Your task to perform on an android device: turn notification dots on Image 0: 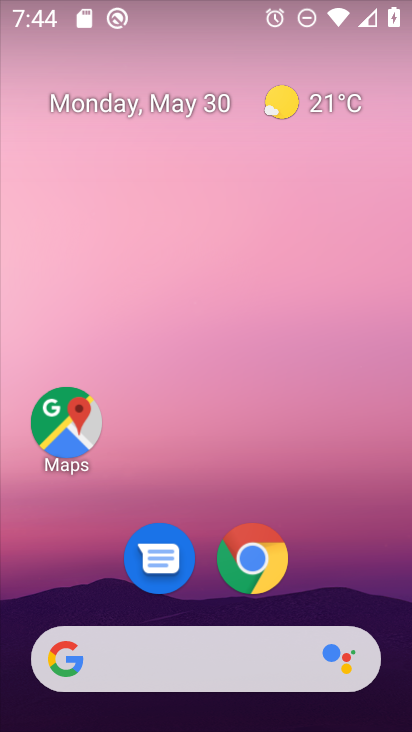
Step 0: drag from (302, 509) to (185, 88)
Your task to perform on an android device: turn notification dots on Image 1: 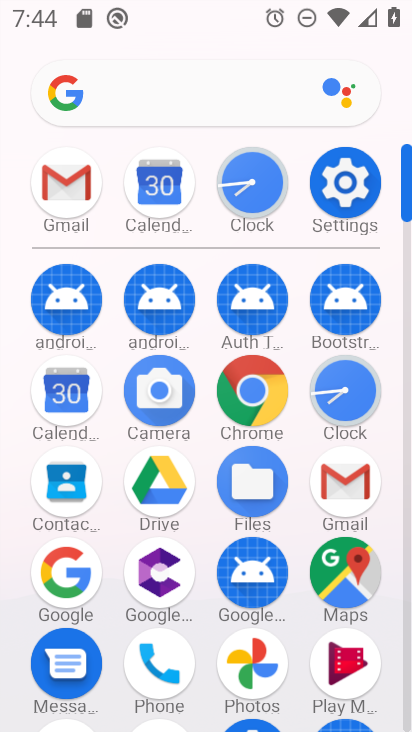
Step 1: click (339, 183)
Your task to perform on an android device: turn notification dots on Image 2: 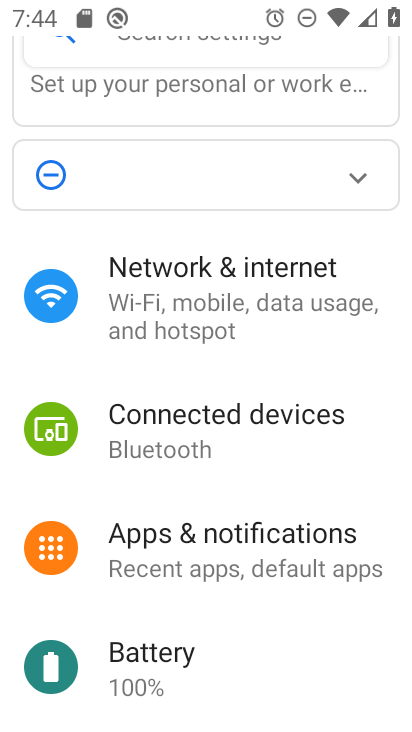
Step 2: click (251, 533)
Your task to perform on an android device: turn notification dots on Image 3: 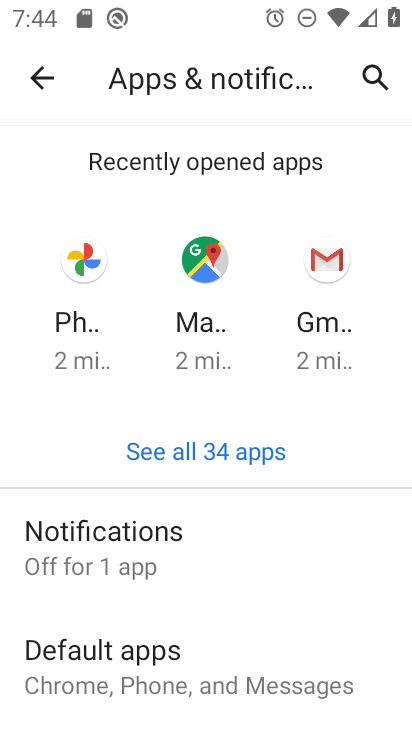
Step 3: click (136, 531)
Your task to perform on an android device: turn notification dots on Image 4: 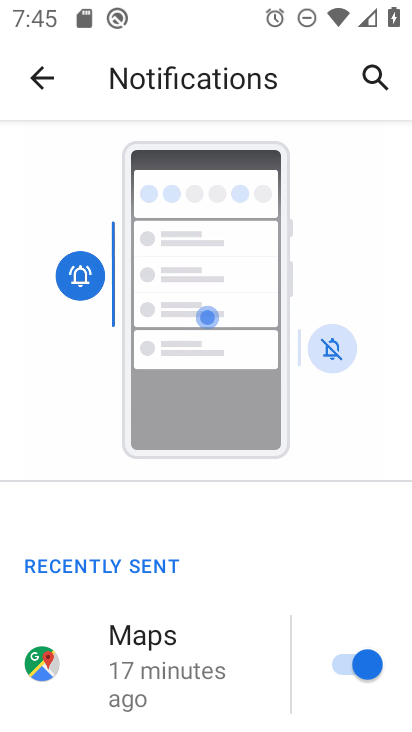
Step 4: drag from (216, 660) to (233, 240)
Your task to perform on an android device: turn notification dots on Image 5: 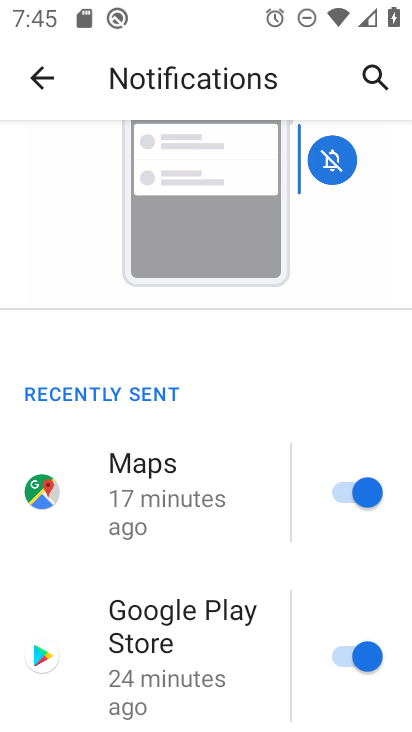
Step 5: drag from (238, 550) to (200, 174)
Your task to perform on an android device: turn notification dots on Image 6: 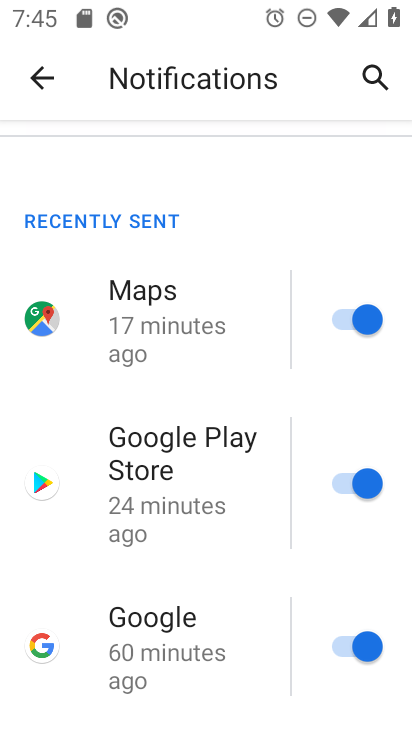
Step 6: drag from (256, 577) to (249, 309)
Your task to perform on an android device: turn notification dots on Image 7: 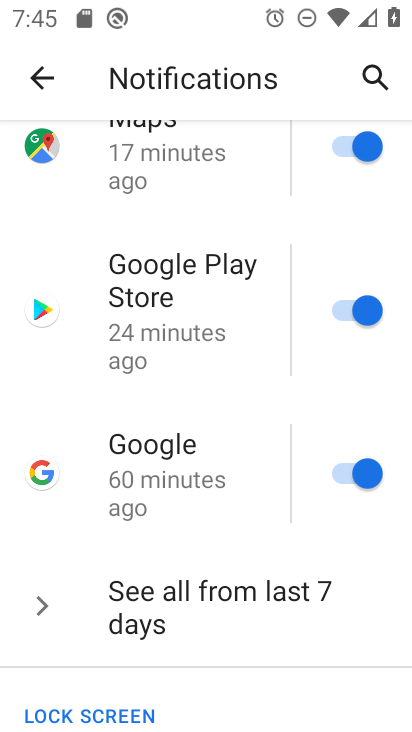
Step 7: drag from (233, 654) to (223, 297)
Your task to perform on an android device: turn notification dots on Image 8: 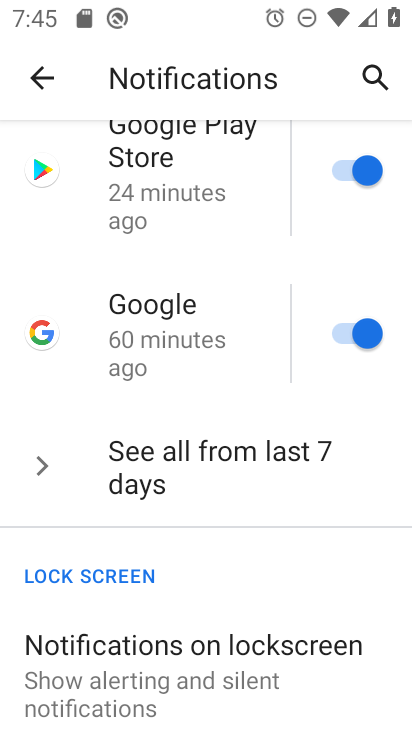
Step 8: drag from (210, 589) to (155, 140)
Your task to perform on an android device: turn notification dots on Image 9: 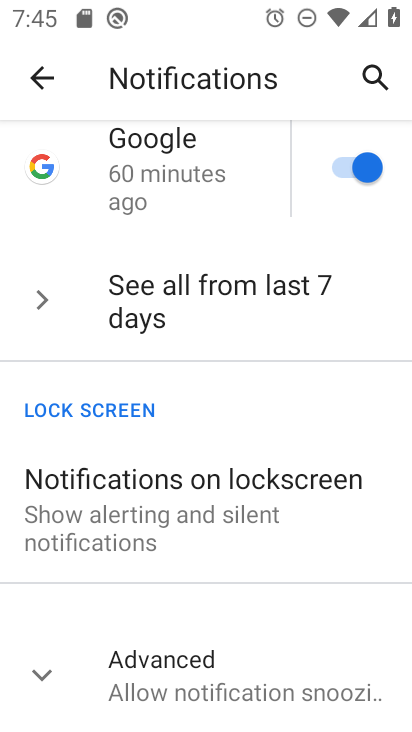
Step 9: click (51, 695)
Your task to perform on an android device: turn notification dots on Image 10: 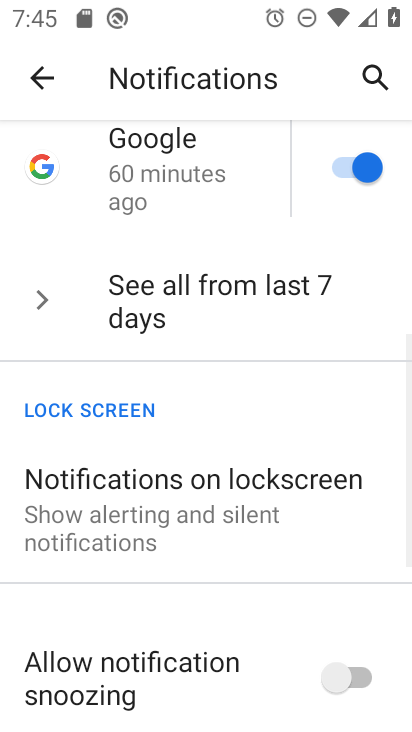
Step 10: task complete